Your task to perform on an android device: change text size in settings app Image 0: 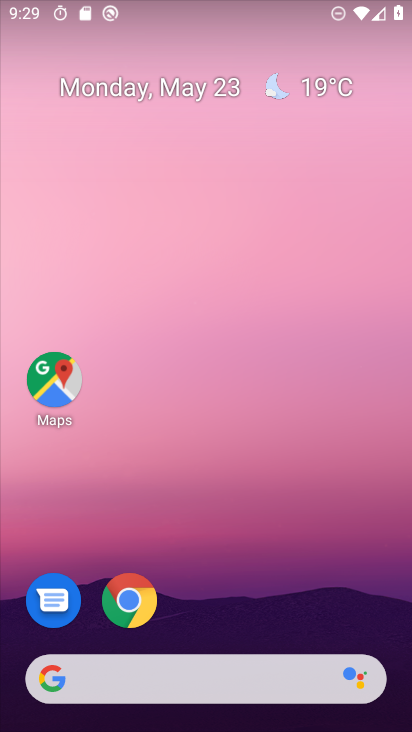
Step 0: drag from (23, 630) to (185, 134)
Your task to perform on an android device: change text size in settings app Image 1: 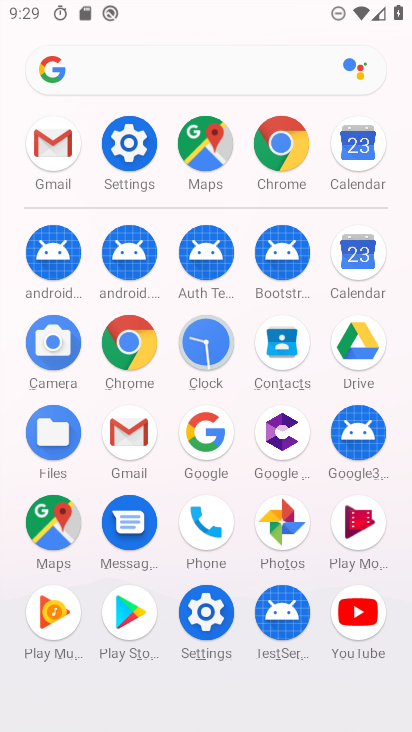
Step 1: click (119, 154)
Your task to perform on an android device: change text size in settings app Image 2: 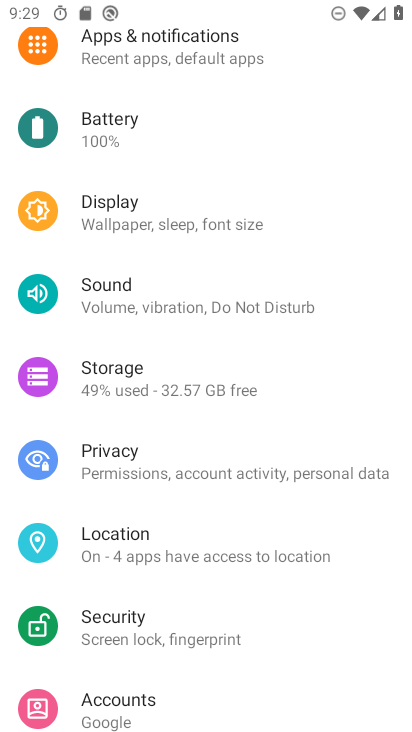
Step 2: click (196, 217)
Your task to perform on an android device: change text size in settings app Image 3: 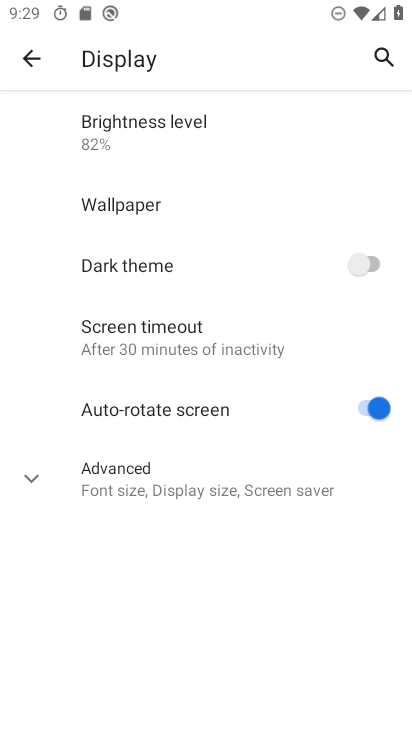
Step 3: click (190, 469)
Your task to perform on an android device: change text size in settings app Image 4: 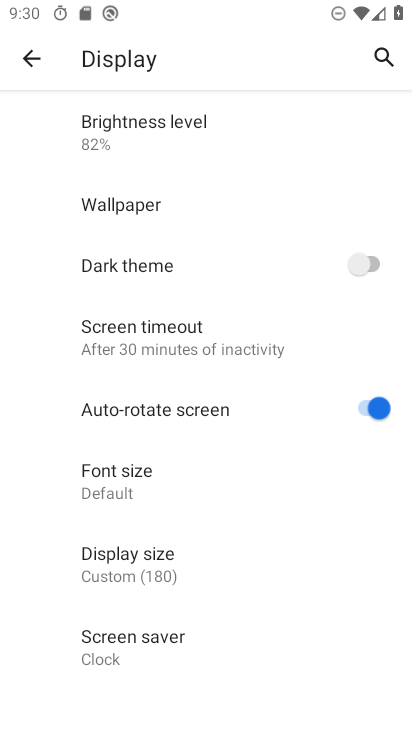
Step 4: click (136, 491)
Your task to perform on an android device: change text size in settings app Image 5: 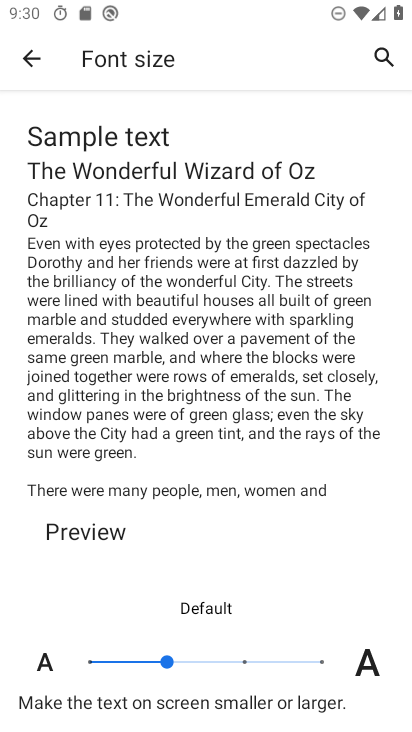
Step 5: click (246, 660)
Your task to perform on an android device: change text size in settings app Image 6: 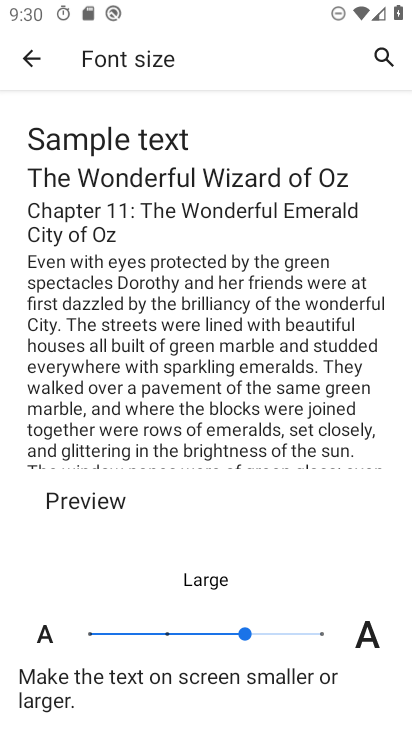
Step 6: task complete